Your task to perform on an android device: turn pop-ups off in chrome Image 0: 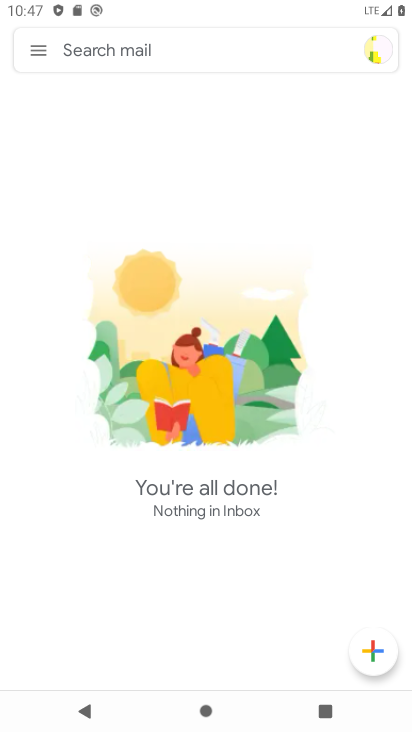
Step 0: click (331, 561)
Your task to perform on an android device: turn pop-ups off in chrome Image 1: 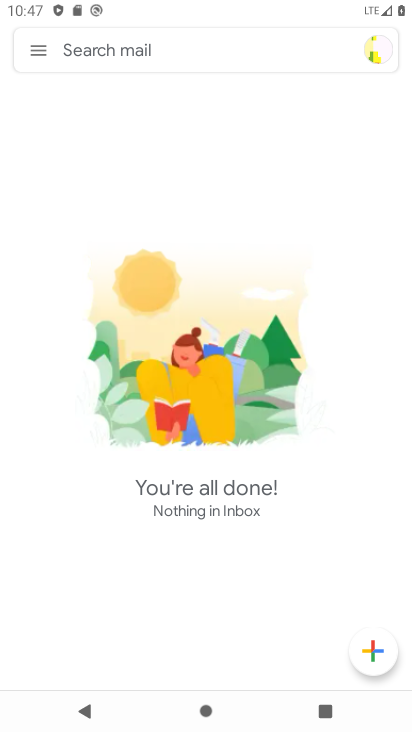
Step 1: press home button
Your task to perform on an android device: turn pop-ups off in chrome Image 2: 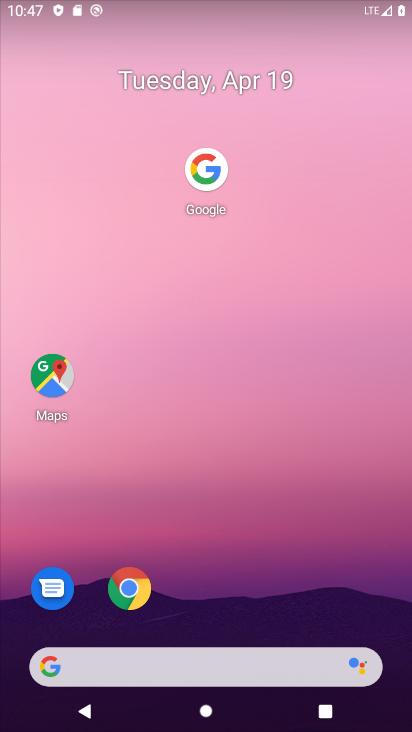
Step 2: click (129, 581)
Your task to perform on an android device: turn pop-ups off in chrome Image 3: 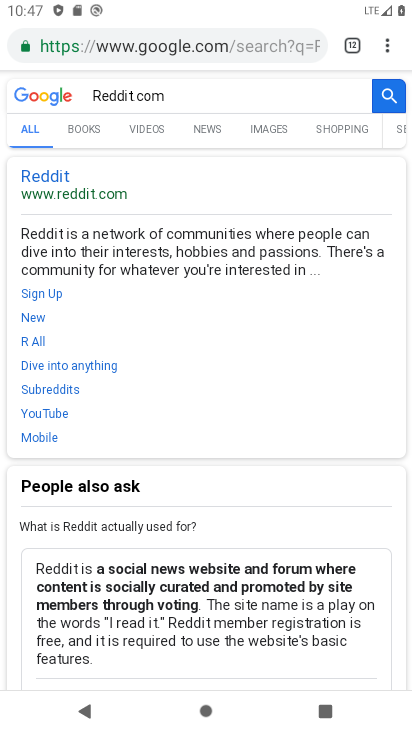
Step 3: click (386, 50)
Your task to perform on an android device: turn pop-ups off in chrome Image 4: 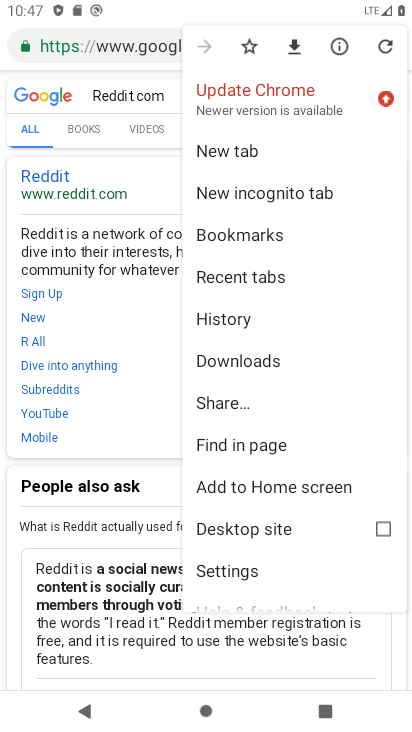
Step 4: click (233, 561)
Your task to perform on an android device: turn pop-ups off in chrome Image 5: 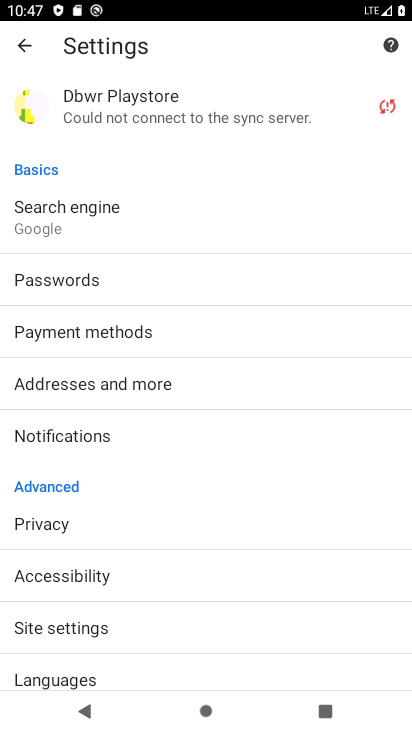
Step 5: click (73, 622)
Your task to perform on an android device: turn pop-ups off in chrome Image 6: 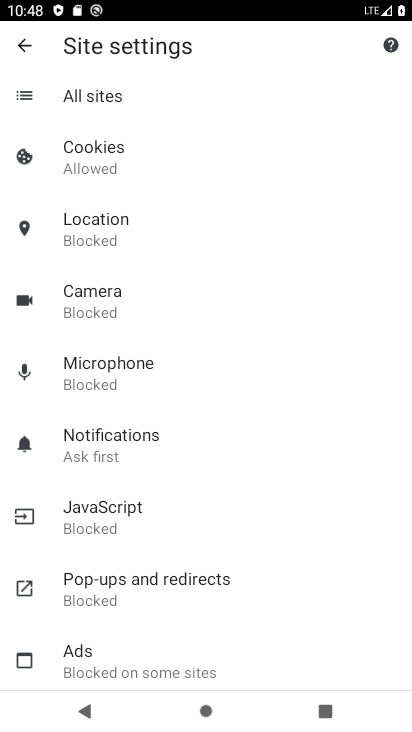
Step 6: click (143, 575)
Your task to perform on an android device: turn pop-ups off in chrome Image 7: 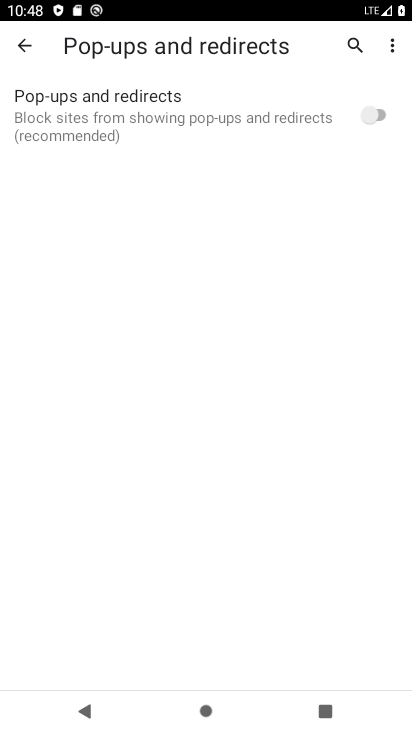
Step 7: task complete